Your task to perform on an android device: Open the web browser Image 0: 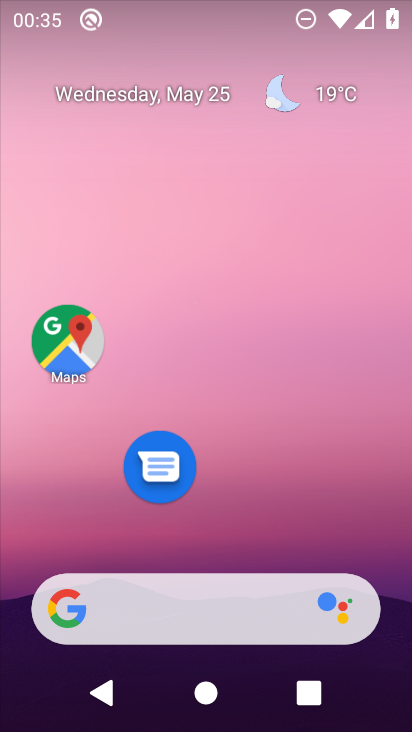
Step 0: drag from (195, 522) to (255, 156)
Your task to perform on an android device: Open the web browser Image 1: 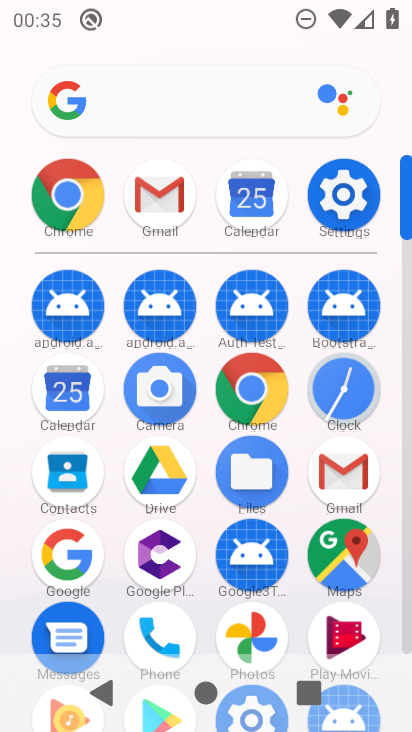
Step 1: click (63, 191)
Your task to perform on an android device: Open the web browser Image 2: 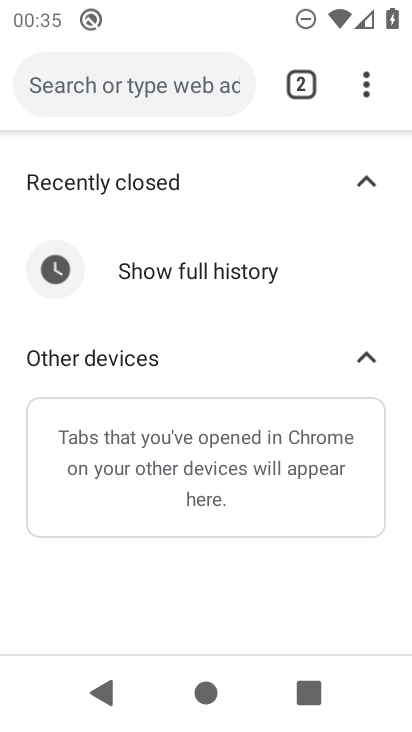
Step 2: task complete